Your task to perform on an android device: Go to network settings Image 0: 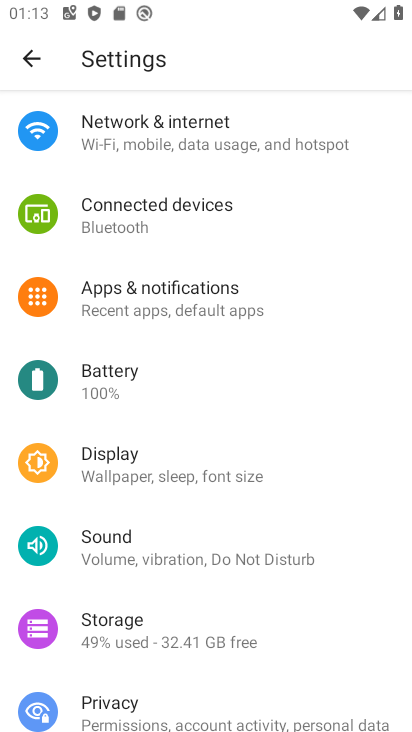
Step 0: click (134, 134)
Your task to perform on an android device: Go to network settings Image 1: 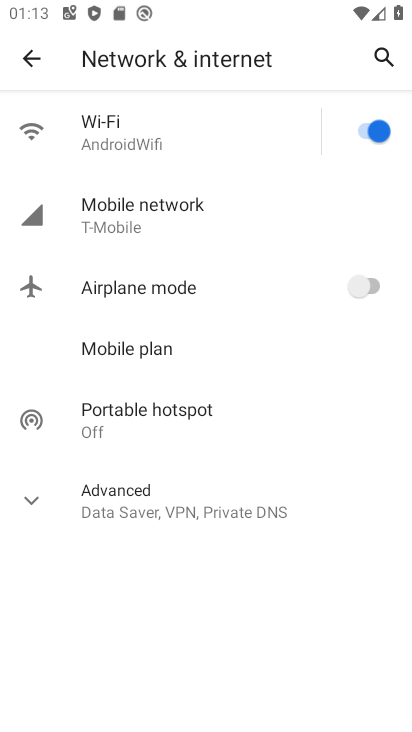
Step 1: task complete